Your task to perform on an android device: change your default location settings in chrome Image 0: 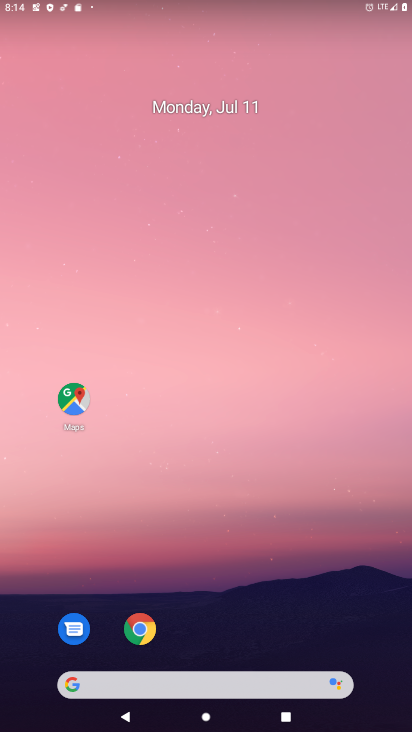
Step 0: click (140, 627)
Your task to perform on an android device: change your default location settings in chrome Image 1: 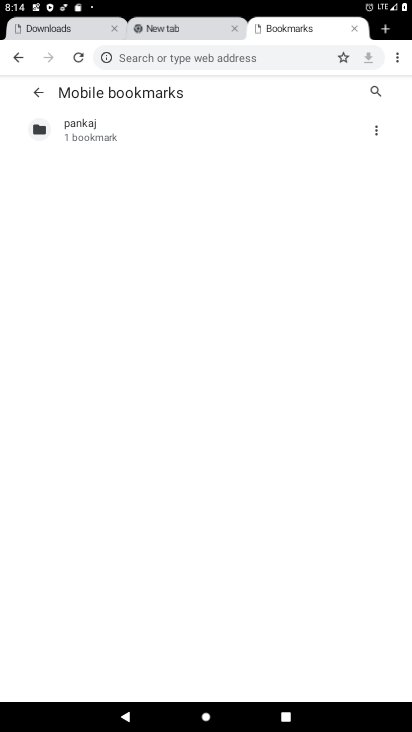
Step 1: click (392, 57)
Your task to perform on an android device: change your default location settings in chrome Image 2: 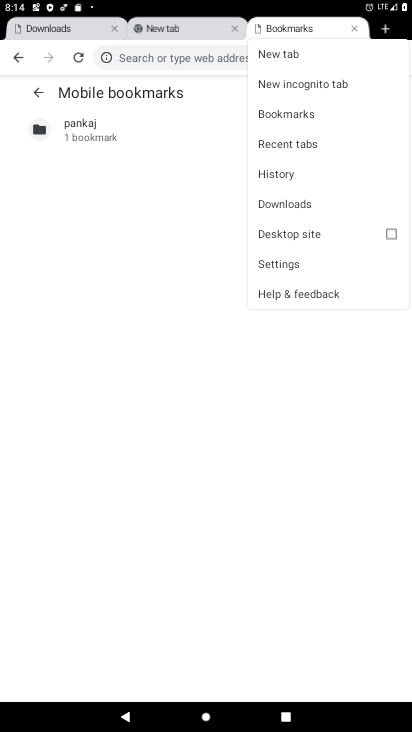
Step 2: click (291, 263)
Your task to perform on an android device: change your default location settings in chrome Image 3: 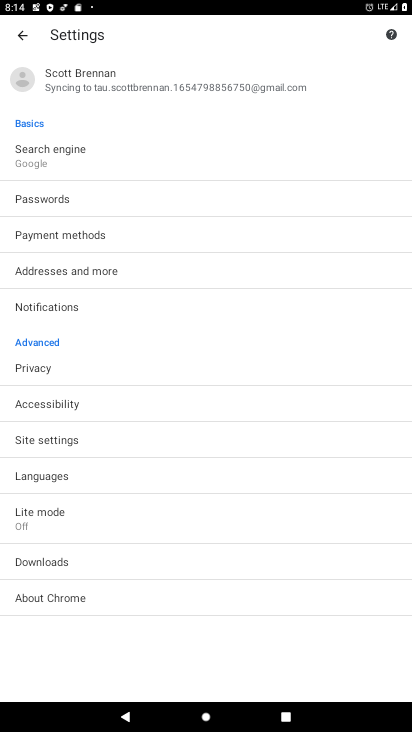
Step 3: click (53, 440)
Your task to perform on an android device: change your default location settings in chrome Image 4: 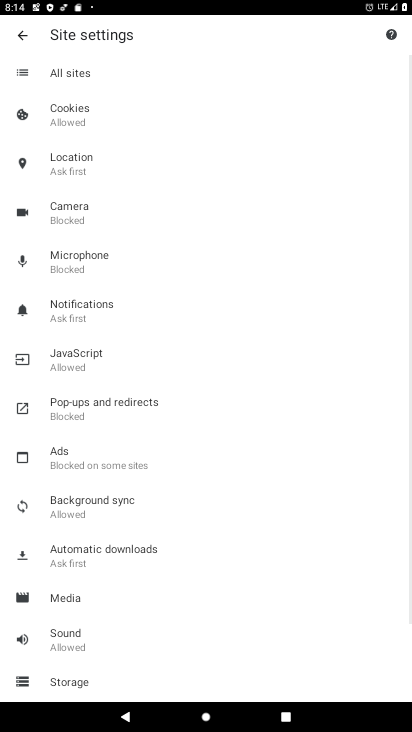
Step 4: click (73, 166)
Your task to perform on an android device: change your default location settings in chrome Image 5: 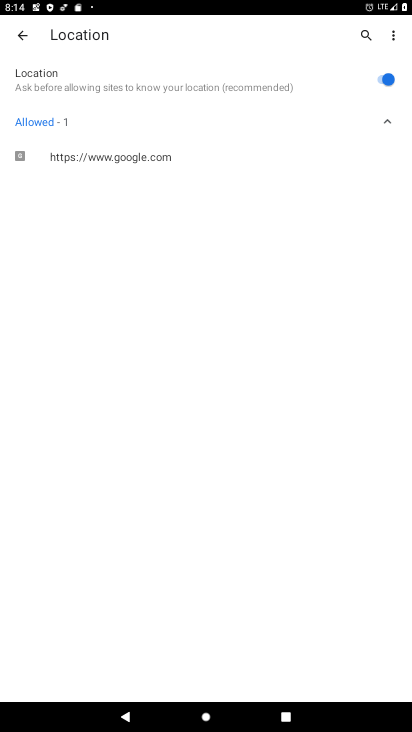
Step 5: click (391, 76)
Your task to perform on an android device: change your default location settings in chrome Image 6: 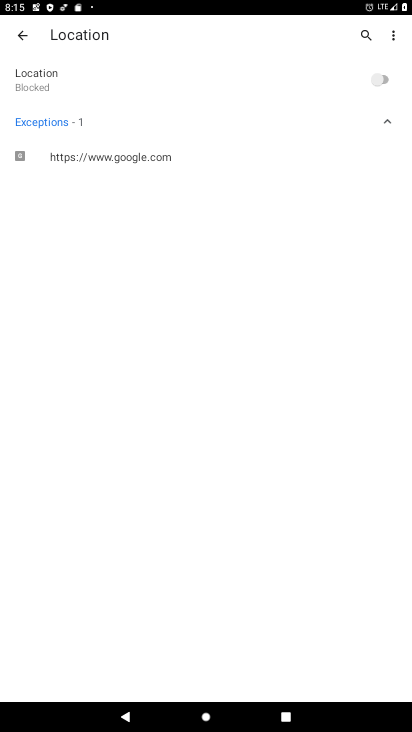
Step 6: task complete